Your task to perform on an android device: choose inbox layout in the gmail app Image 0: 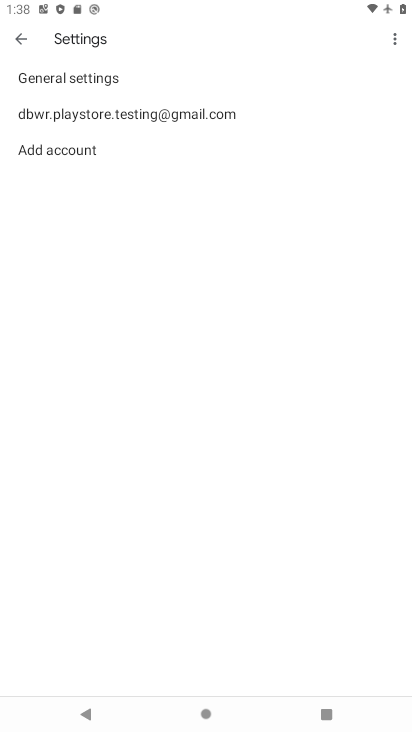
Step 0: press home button
Your task to perform on an android device: choose inbox layout in the gmail app Image 1: 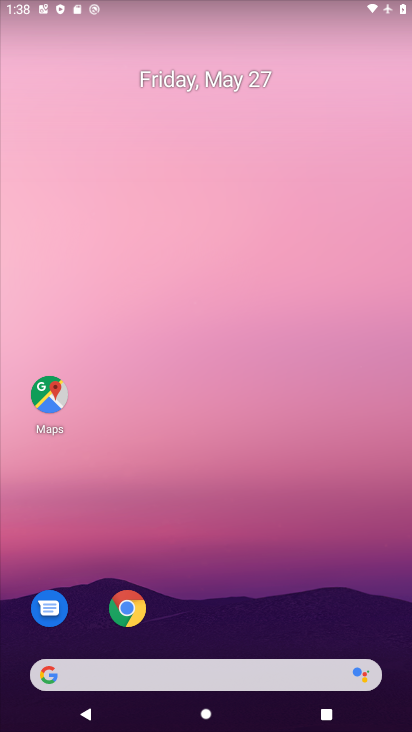
Step 1: drag from (181, 677) to (287, 252)
Your task to perform on an android device: choose inbox layout in the gmail app Image 2: 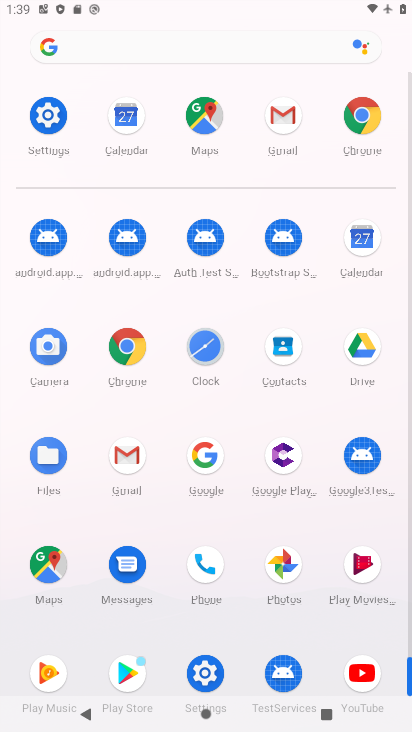
Step 2: click (128, 463)
Your task to perform on an android device: choose inbox layout in the gmail app Image 3: 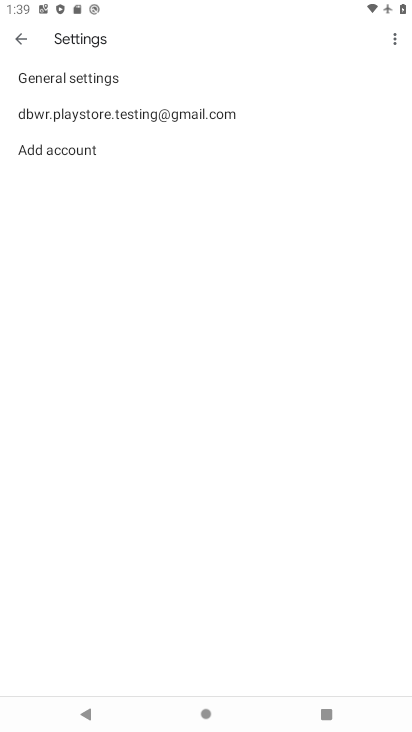
Step 3: click (176, 106)
Your task to perform on an android device: choose inbox layout in the gmail app Image 4: 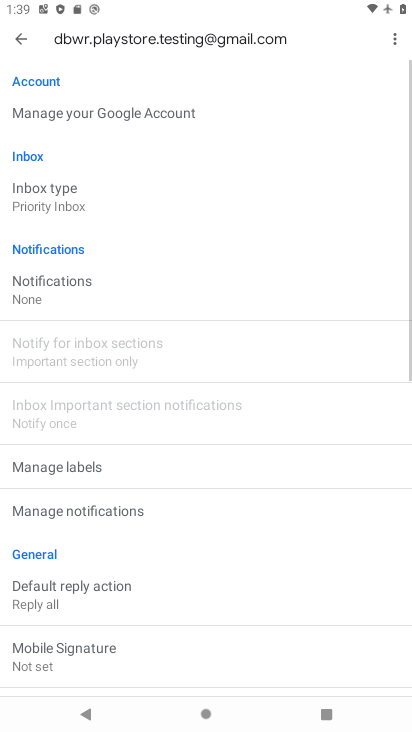
Step 4: click (57, 202)
Your task to perform on an android device: choose inbox layout in the gmail app Image 5: 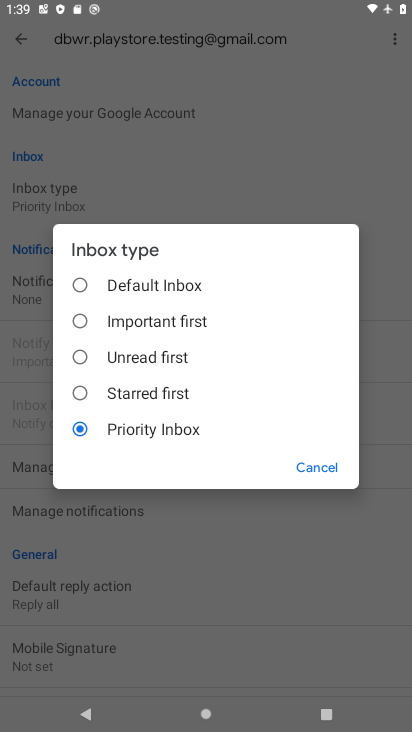
Step 5: click (76, 292)
Your task to perform on an android device: choose inbox layout in the gmail app Image 6: 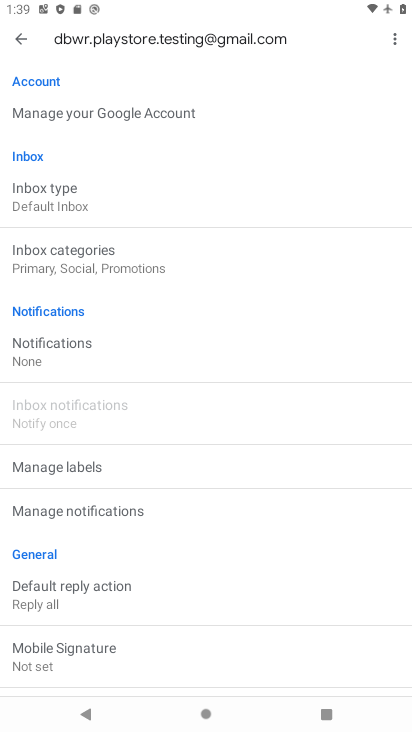
Step 6: task complete